Your task to perform on an android device: open a bookmark in the chrome app Image 0: 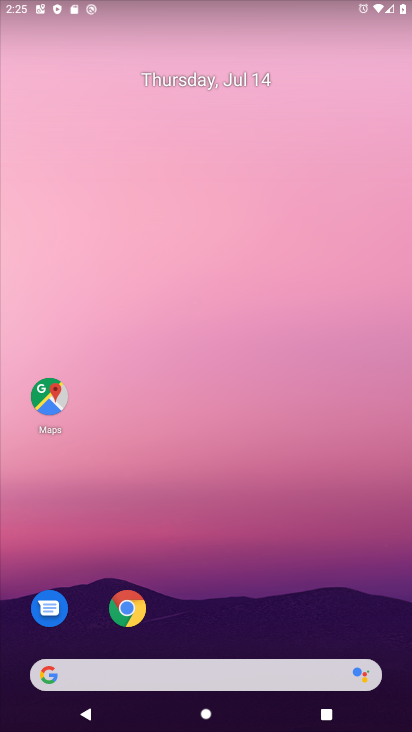
Step 0: drag from (242, 722) to (256, 121)
Your task to perform on an android device: open a bookmark in the chrome app Image 1: 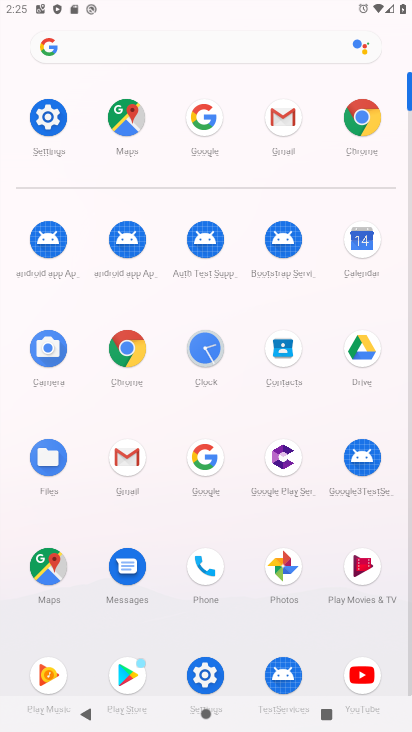
Step 1: click (133, 345)
Your task to perform on an android device: open a bookmark in the chrome app Image 2: 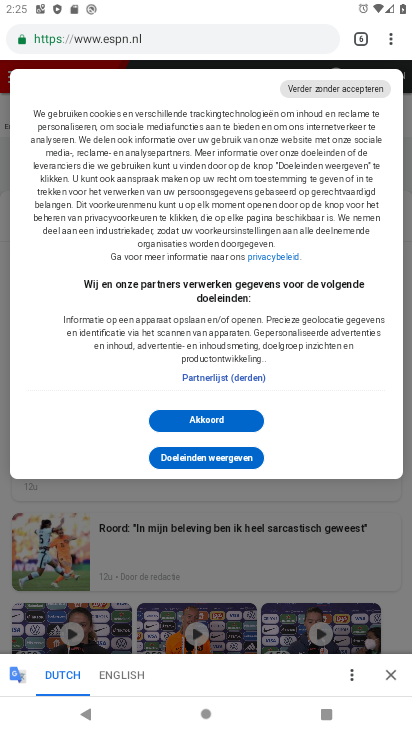
Step 2: click (391, 41)
Your task to perform on an android device: open a bookmark in the chrome app Image 3: 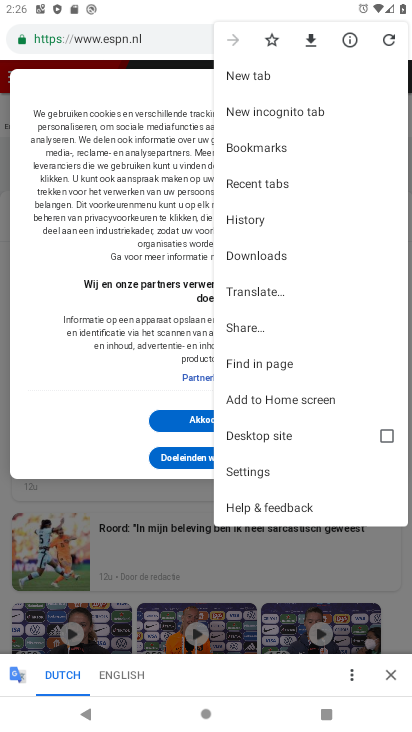
Step 3: click (257, 142)
Your task to perform on an android device: open a bookmark in the chrome app Image 4: 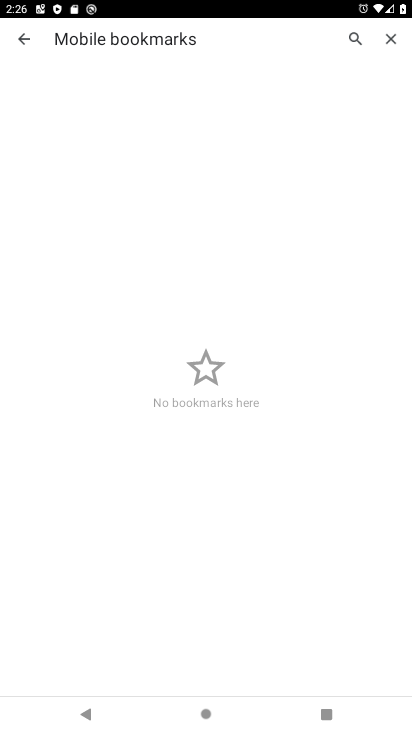
Step 4: task complete